Your task to perform on an android device: turn off wifi Image 0: 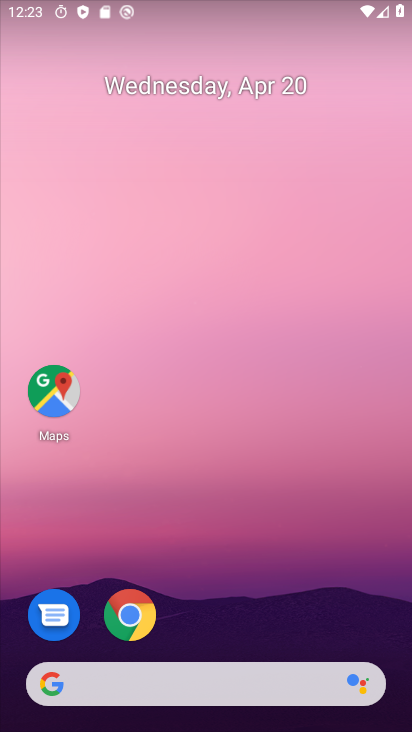
Step 0: drag from (183, 524) to (265, 165)
Your task to perform on an android device: turn off wifi Image 1: 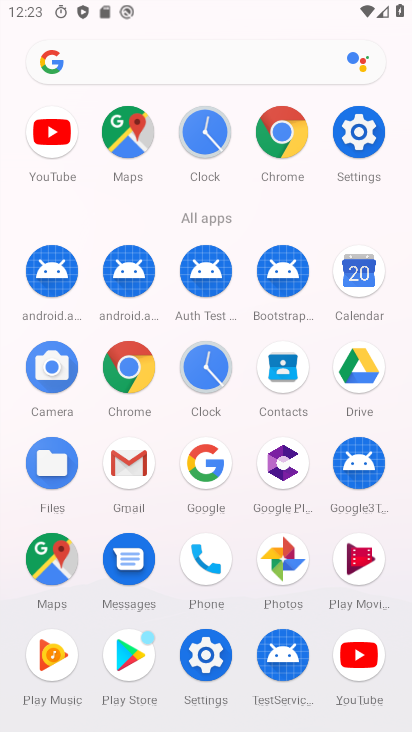
Step 1: click (208, 647)
Your task to perform on an android device: turn off wifi Image 2: 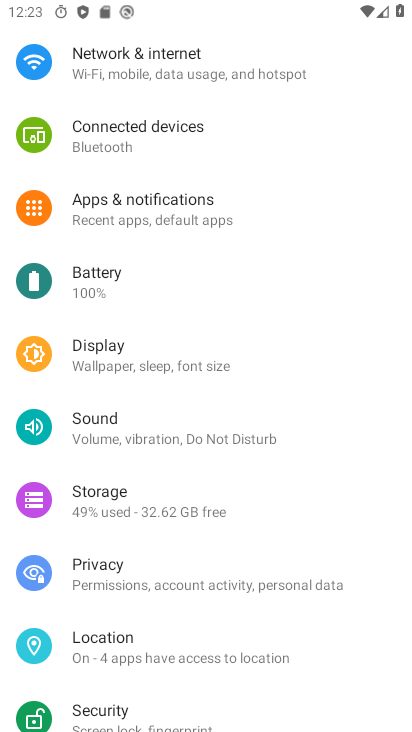
Step 2: drag from (275, 110) to (244, 473)
Your task to perform on an android device: turn off wifi Image 3: 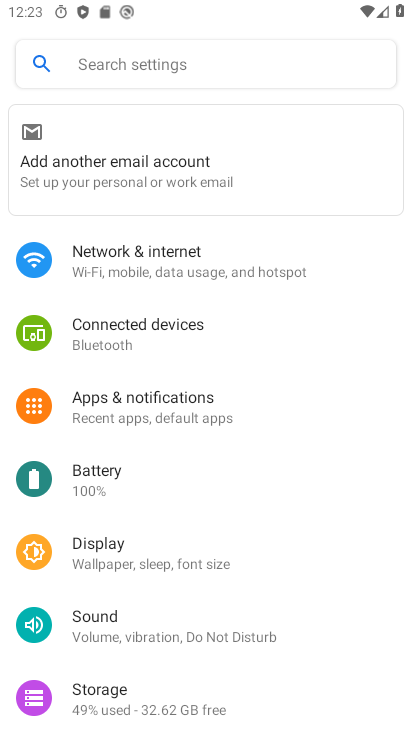
Step 3: click (170, 268)
Your task to perform on an android device: turn off wifi Image 4: 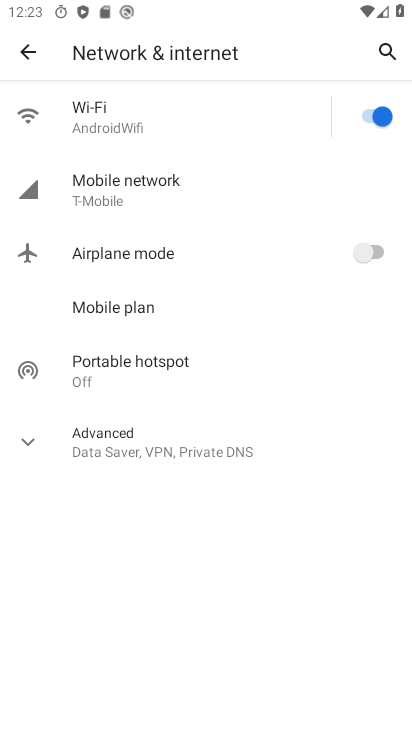
Step 4: click (369, 111)
Your task to perform on an android device: turn off wifi Image 5: 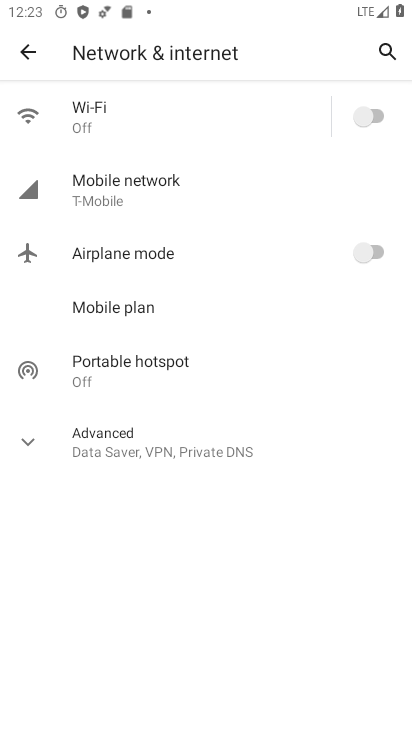
Step 5: task complete